Your task to perform on an android device: turn pop-ups on in chrome Image 0: 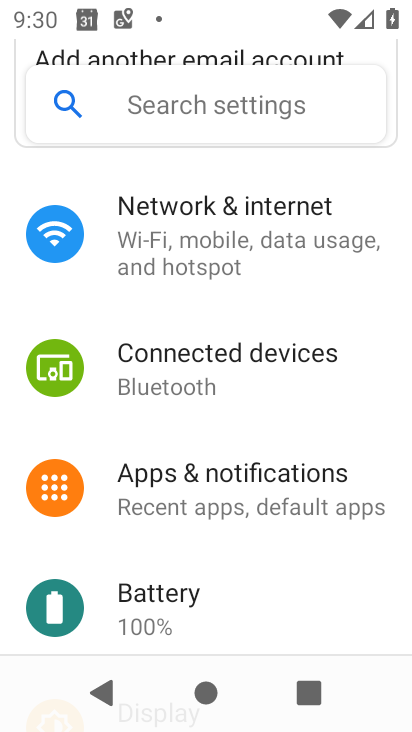
Step 0: press home button
Your task to perform on an android device: turn pop-ups on in chrome Image 1: 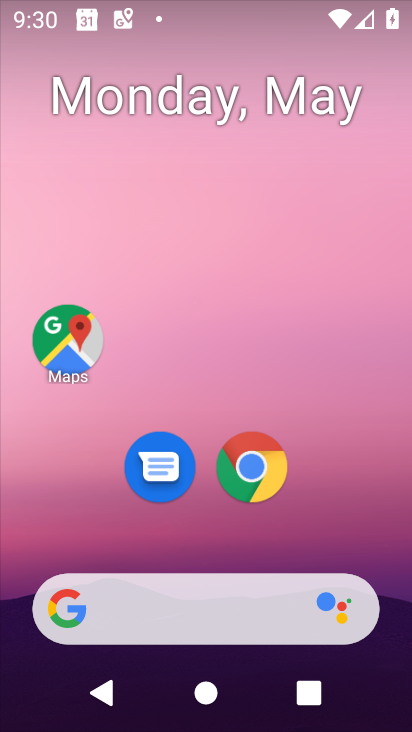
Step 1: drag from (267, 687) to (301, 94)
Your task to perform on an android device: turn pop-ups on in chrome Image 2: 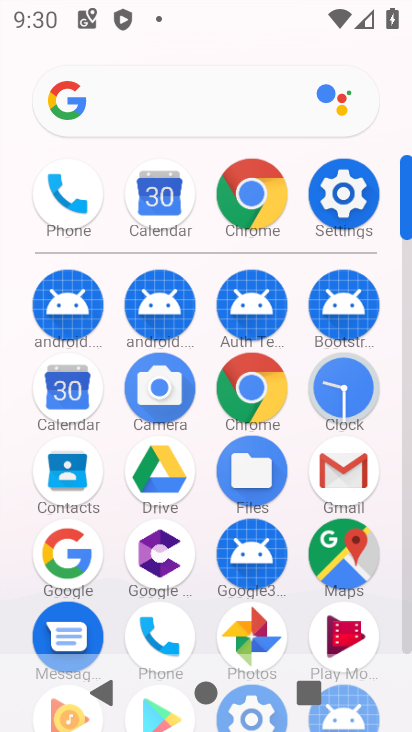
Step 2: click (259, 180)
Your task to perform on an android device: turn pop-ups on in chrome Image 3: 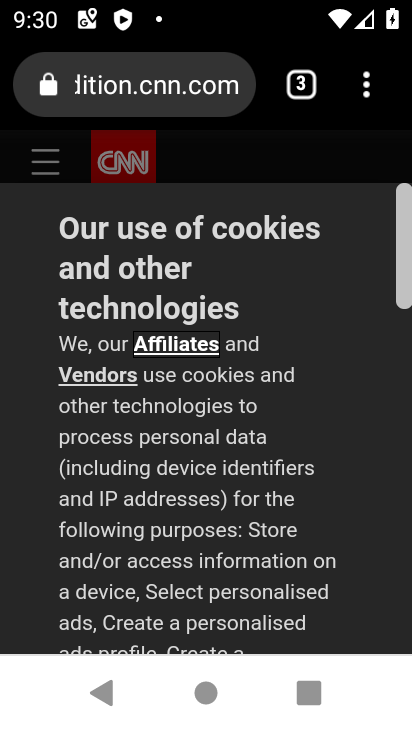
Step 3: click (364, 102)
Your task to perform on an android device: turn pop-ups on in chrome Image 4: 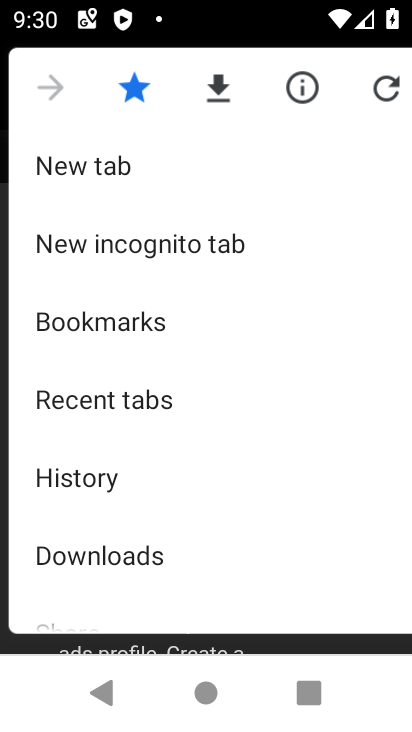
Step 4: drag from (172, 533) to (193, 362)
Your task to perform on an android device: turn pop-ups on in chrome Image 5: 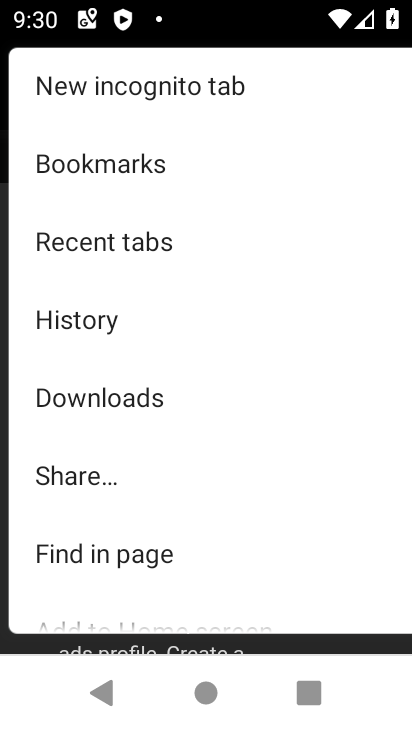
Step 5: drag from (197, 471) to (166, 340)
Your task to perform on an android device: turn pop-ups on in chrome Image 6: 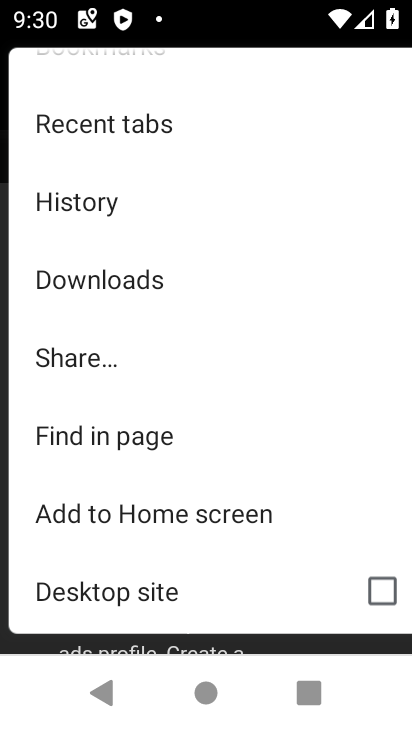
Step 6: drag from (148, 413) to (146, 271)
Your task to perform on an android device: turn pop-ups on in chrome Image 7: 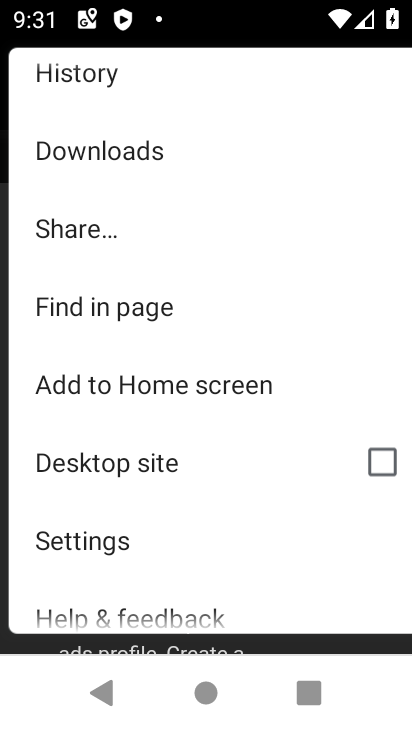
Step 7: click (79, 528)
Your task to perform on an android device: turn pop-ups on in chrome Image 8: 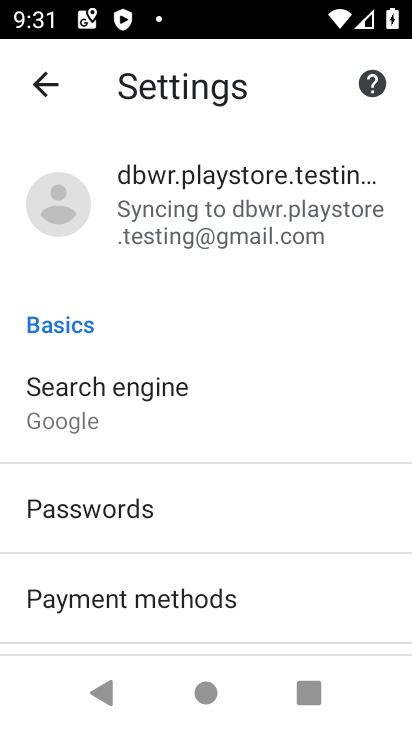
Step 8: drag from (148, 656) to (142, 118)
Your task to perform on an android device: turn pop-ups on in chrome Image 9: 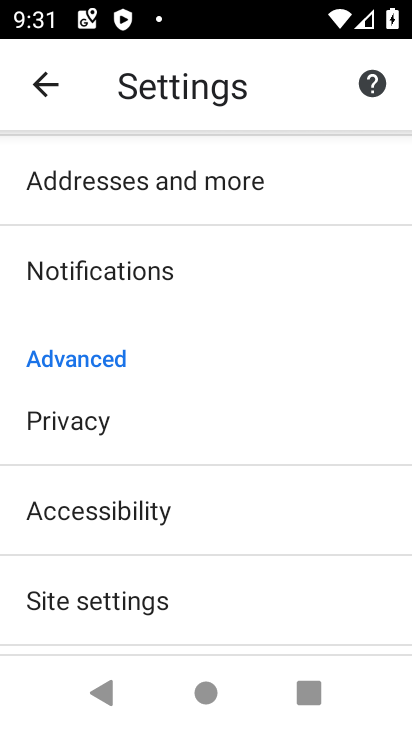
Step 9: click (97, 583)
Your task to perform on an android device: turn pop-ups on in chrome Image 10: 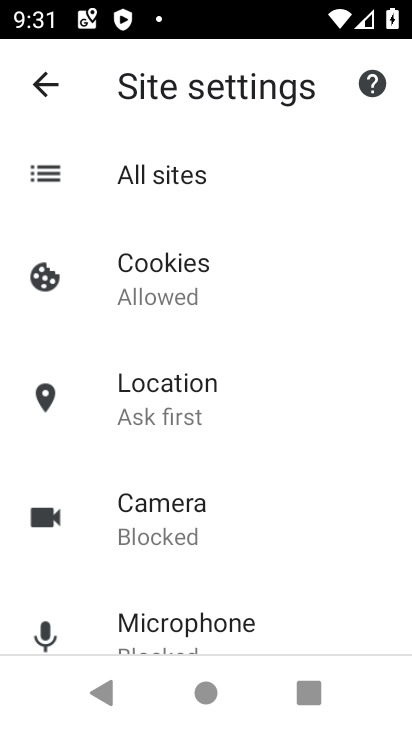
Step 10: drag from (205, 504) to (143, 129)
Your task to perform on an android device: turn pop-ups on in chrome Image 11: 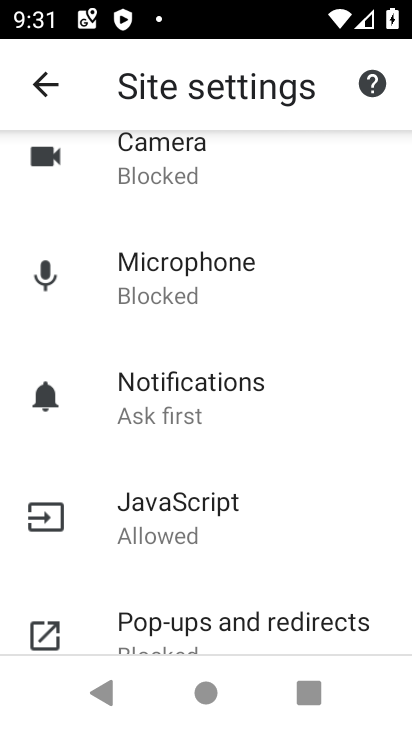
Step 11: click (166, 617)
Your task to perform on an android device: turn pop-ups on in chrome Image 12: 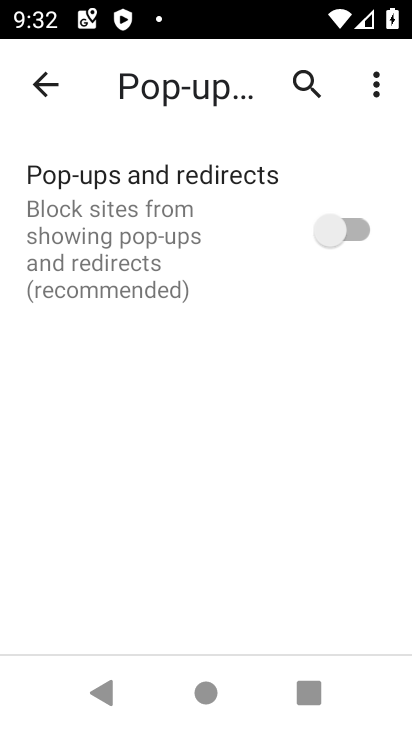
Step 12: click (358, 220)
Your task to perform on an android device: turn pop-ups on in chrome Image 13: 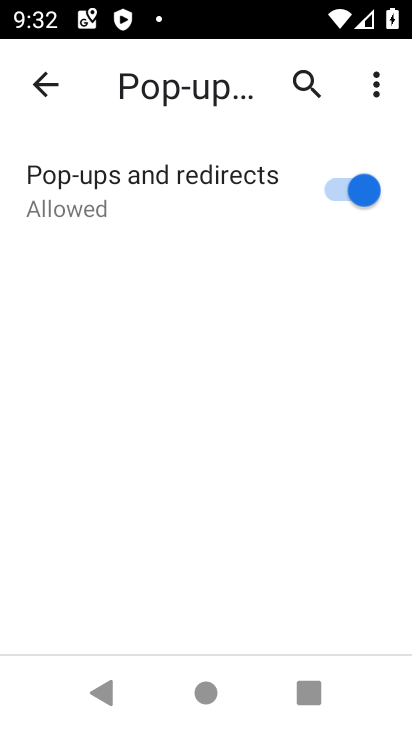
Step 13: task complete